Your task to perform on an android device: Go to location settings Image 0: 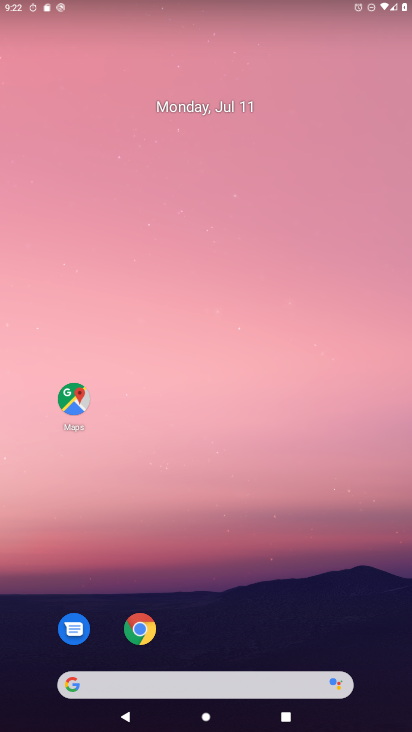
Step 0: drag from (240, 623) to (300, 50)
Your task to perform on an android device: Go to location settings Image 1: 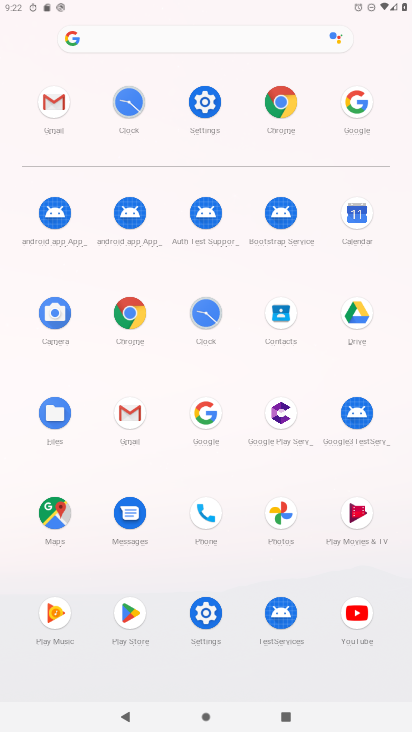
Step 1: click (202, 102)
Your task to perform on an android device: Go to location settings Image 2: 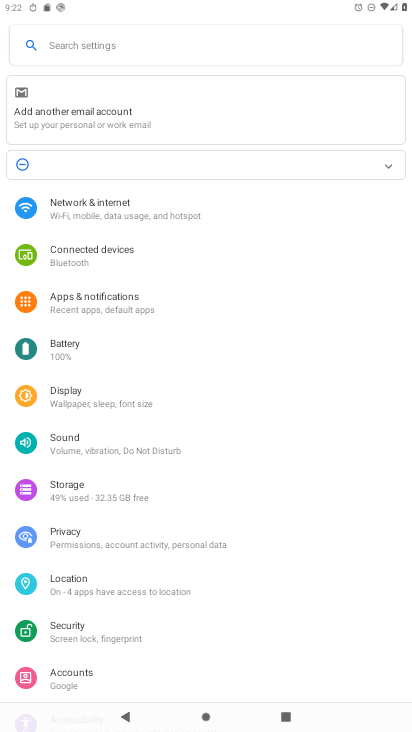
Step 2: click (91, 573)
Your task to perform on an android device: Go to location settings Image 3: 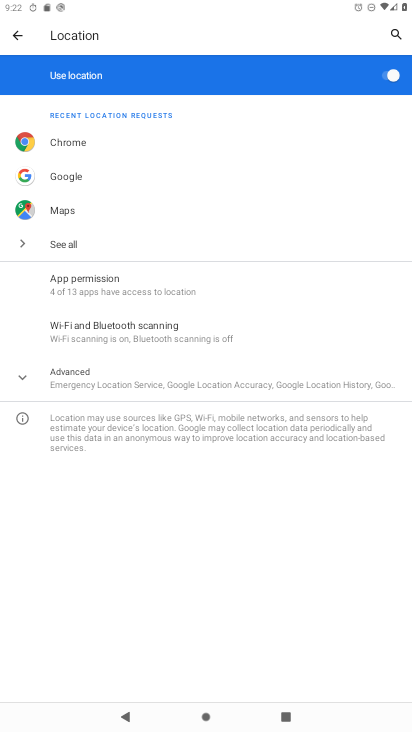
Step 3: task complete